Your task to perform on an android device: set the stopwatch Image 0: 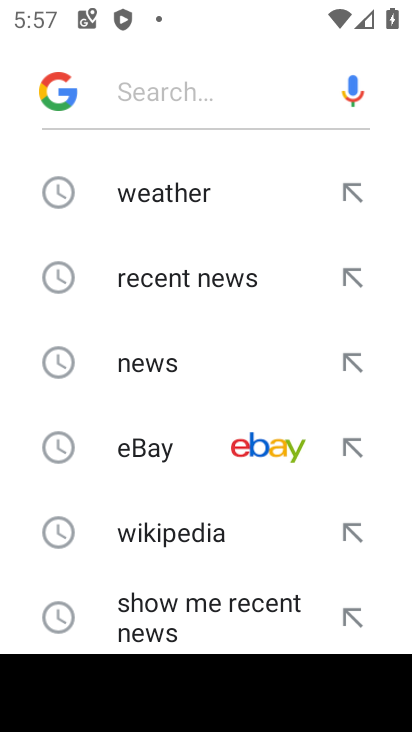
Step 0: press home button
Your task to perform on an android device: set the stopwatch Image 1: 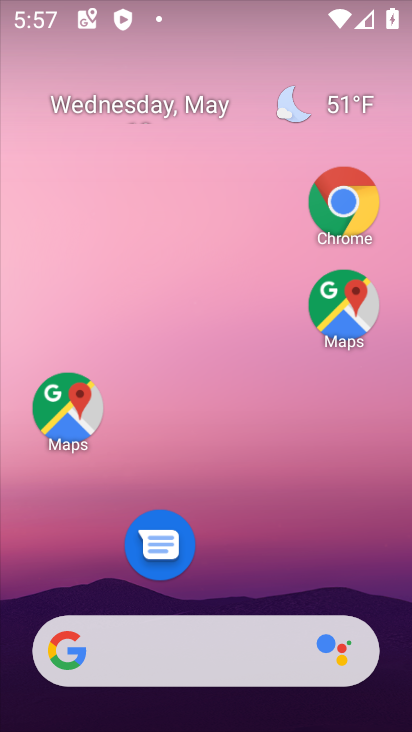
Step 1: drag from (250, 564) to (176, 116)
Your task to perform on an android device: set the stopwatch Image 2: 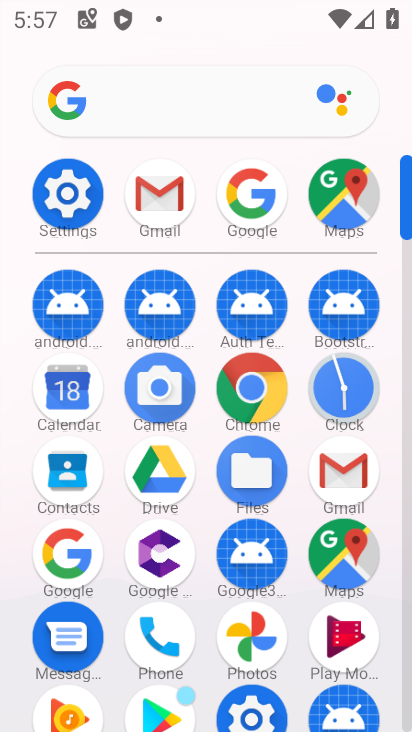
Step 2: click (355, 393)
Your task to perform on an android device: set the stopwatch Image 3: 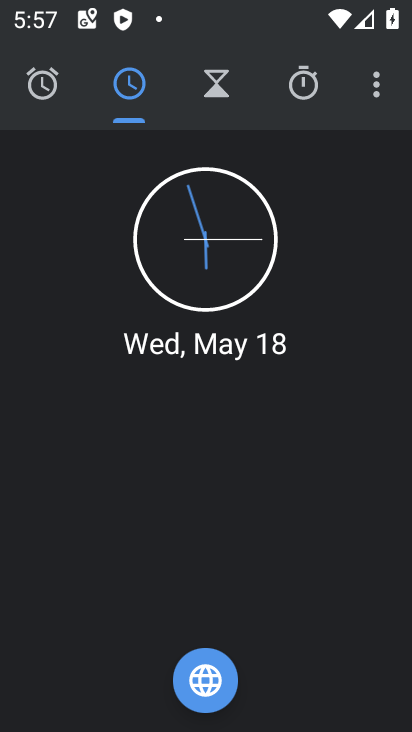
Step 3: click (305, 97)
Your task to perform on an android device: set the stopwatch Image 4: 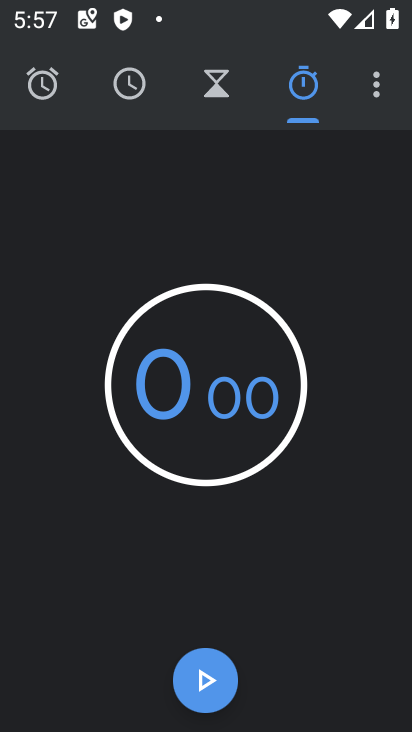
Step 4: click (222, 695)
Your task to perform on an android device: set the stopwatch Image 5: 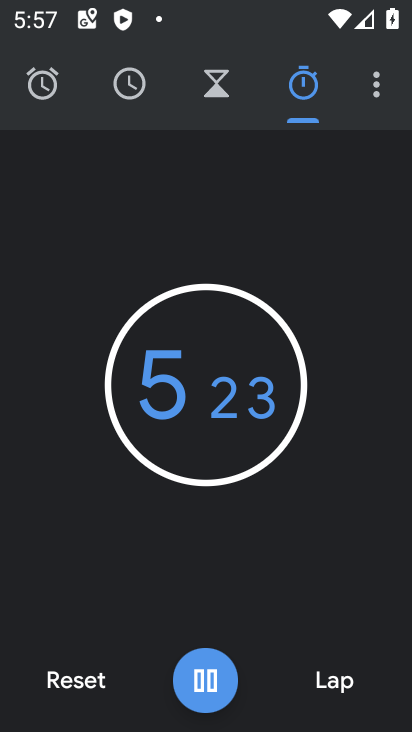
Step 5: click (222, 668)
Your task to perform on an android device: set the stopwatch Image 6: 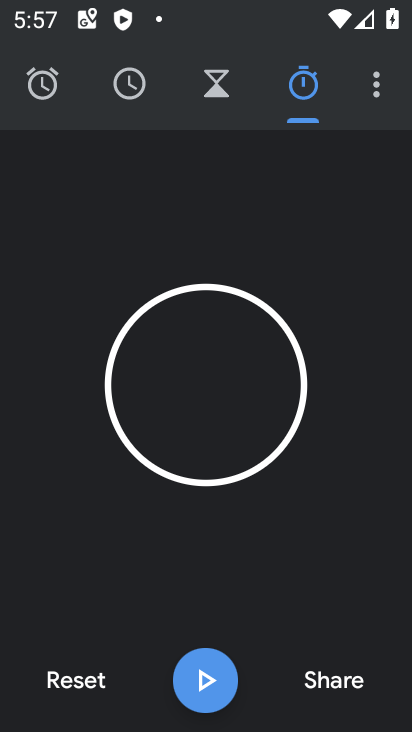
Step 6: task complete